Your task to perform on an android device: empty trash in google photos Image 0: 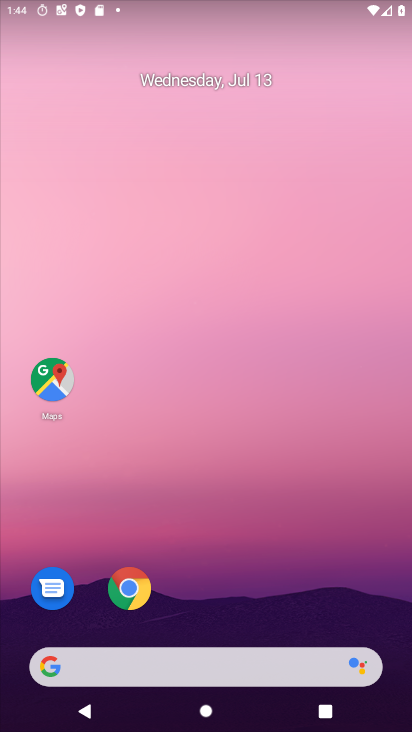
Step 0: drag from (192, 640) to (214, 308)
Your task to perform on an android device: empty trash in google photos Image 1: 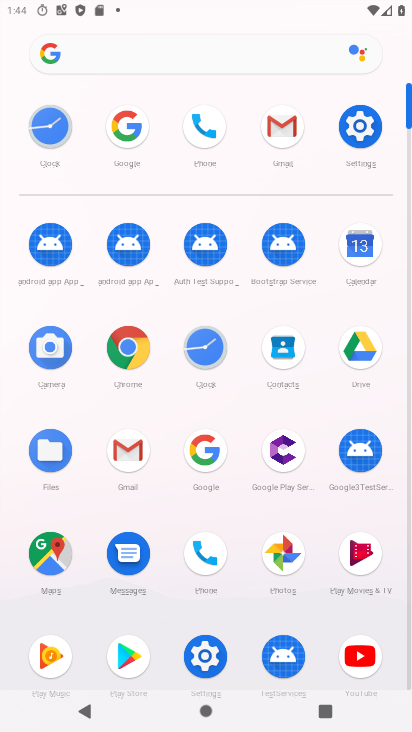
Step 1: click (283, 561)
Your task to perform on an android device: empty trash in google photos Image 2: 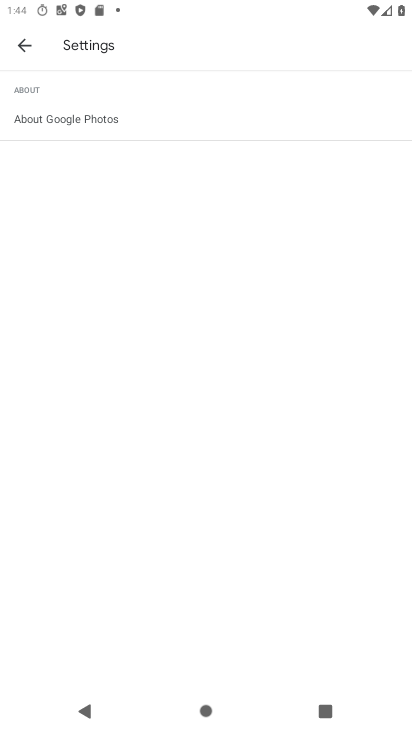
Step 2: click (15, 46)
Your task to perform on an android device: empty trash in google photos Image 3: 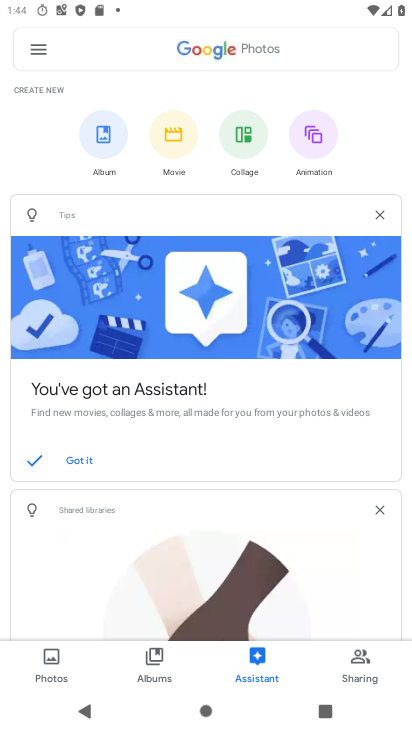
Step 3: click (40, 49)
Your task to perform on an android device: empty trash in google photos Image 4: 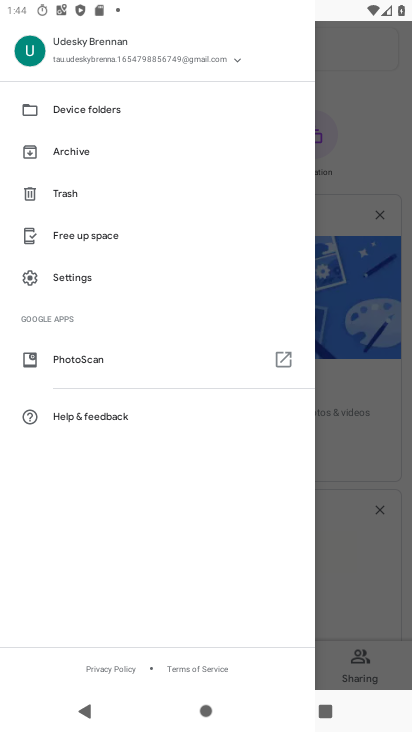
Step 4: click (71, 193)
Your task to perform on an android device: empty trash in google photos Image 5: 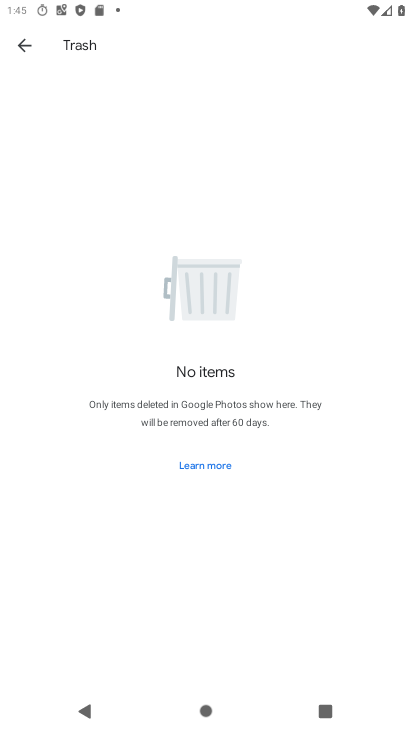
Step 5: task complete